Your task to perform on an android device: open a bookmark in the chrome app Image 0: 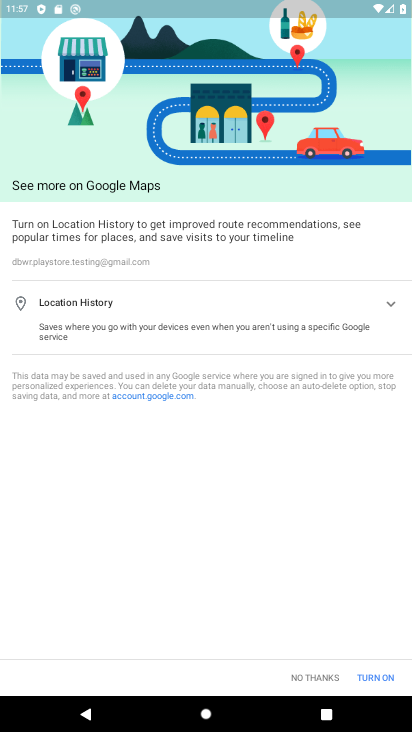
Step 0: press home button
Your task to perform on an android device: open a bookmark in the chrome app Image 1: 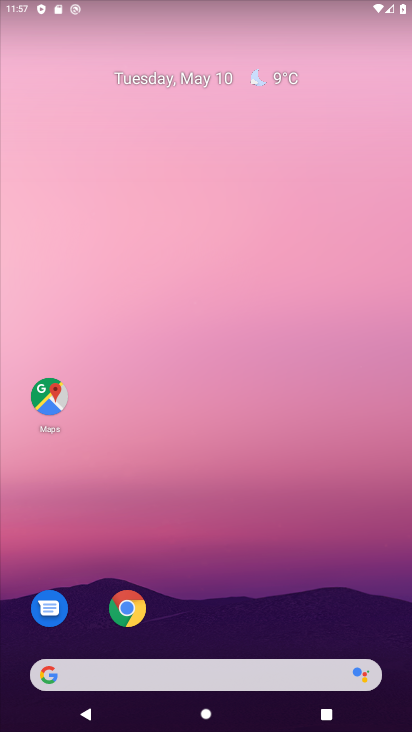
Step 1: drag from (226, 610) to (261, 201)
Your task to perform on an android device: open a bookmark in the chrome app Image 2: 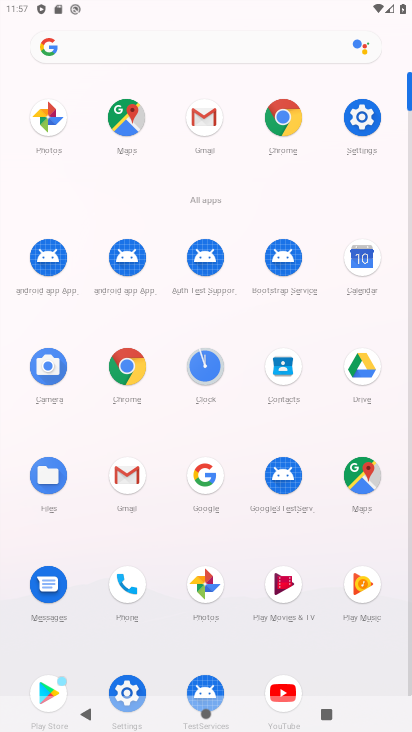
Step 2: click (283, 145)
Your task to perform on an android device: open a bookmark in the chrome app Image 3: 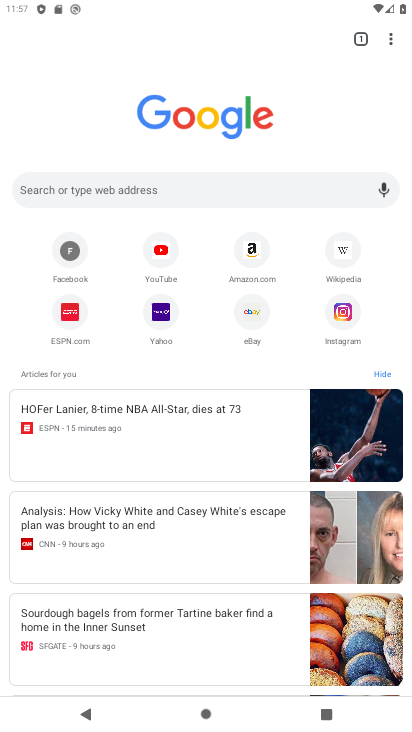
Step 3: click (390, 40)
Your task to perform on an android device: open a bookmark in the chrome app Image 4: 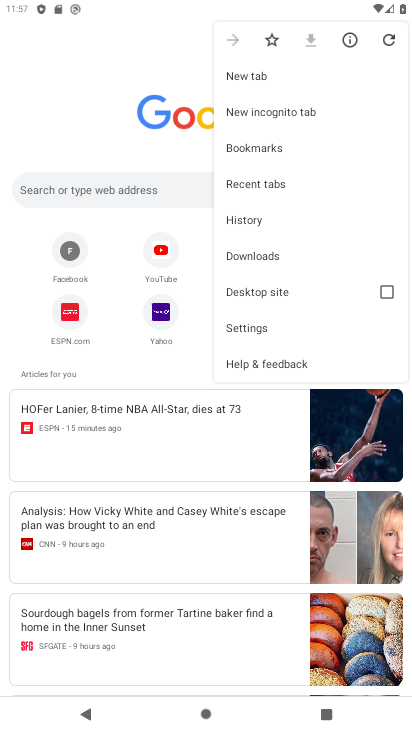
Step 4: click (283, 151)
Your task to perform on an android device: open a bookmark in the chrome app Image 5: 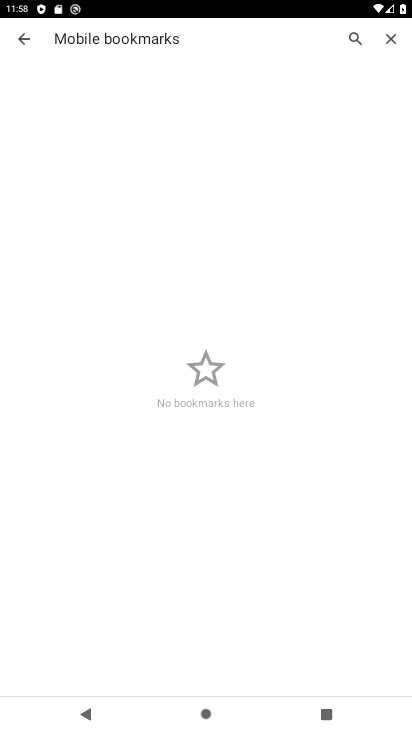
Step 5: task complete